Your task to perform on an android device: turn notification dots off Image 0: 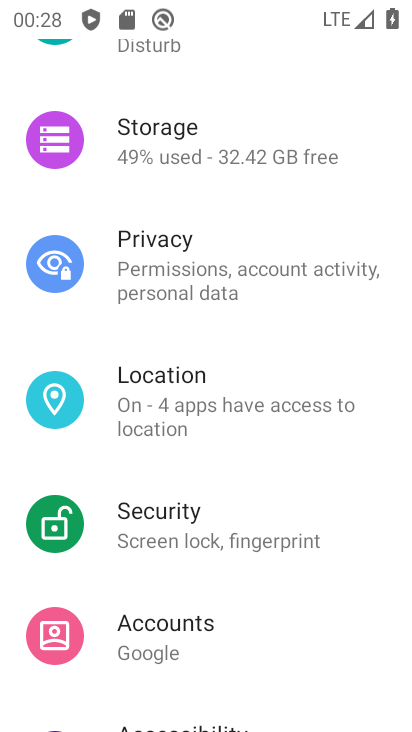
Step 0: drag from (368, 638) to (353, 453)
Your task to perform on an android device: turn notification dots off Image 1: 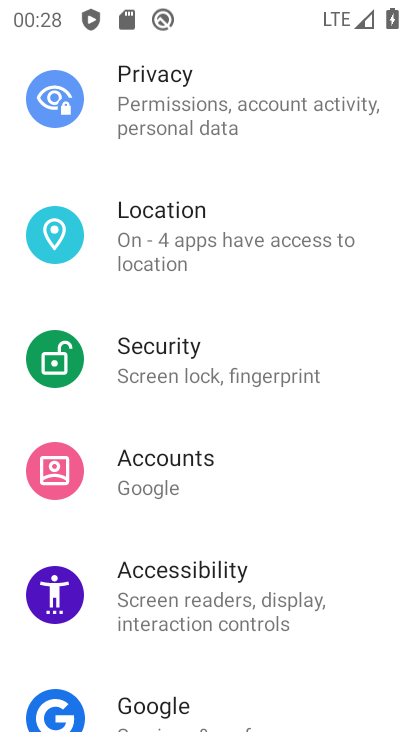
Step 1: drag from (358, 670) to (359, 428)
Your task to perform on an android device: turn notification dots off Image 2: 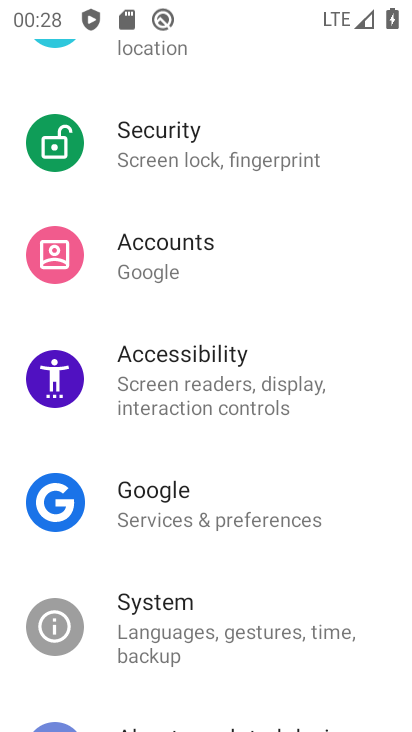
Step 2: drag from (359, 658) to (367, 413)
Your task to perform on an android device: turn notification dots off Image 3: 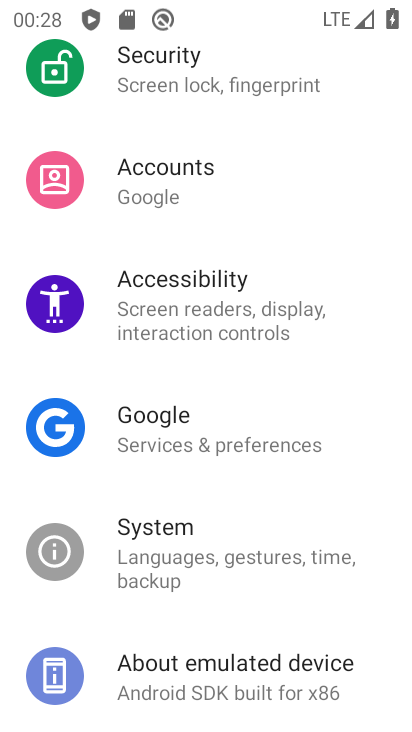
Step 3: drag from (355, 391) to (352, 526)
Your task to perform on an android device: turn notification dots off Image 4: 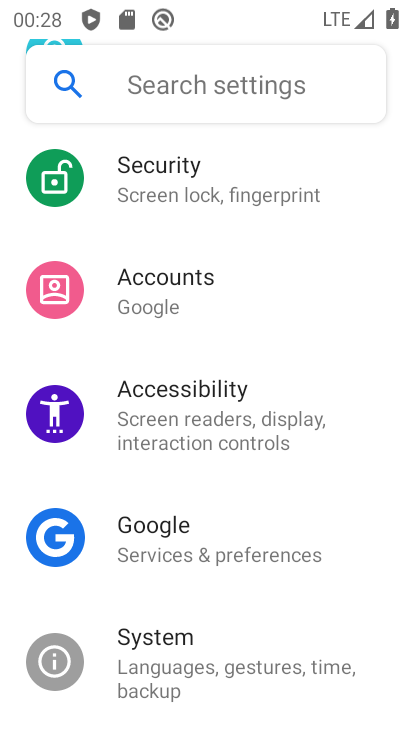
Step 4: drag from (361, 329) to (361, 481)
Your task to perform on an android device: turn notification dots off Image 5: 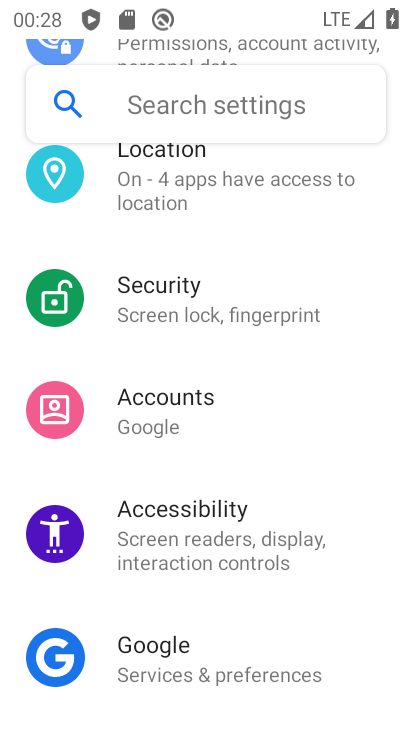
Step 5: drag from (365, 292) to (351, 423)
Your task to perform on an android device: turn notification dots off Image 6: 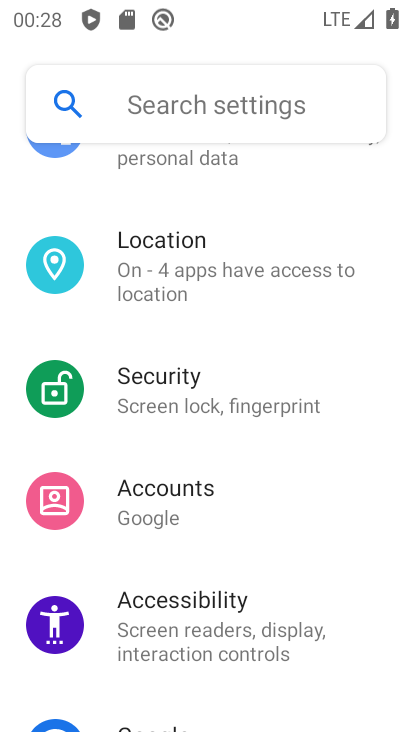
Step 6: drag from (361, 233) to (340, 419)
Your task to perform on an android device: turn notification dots off Image 7: 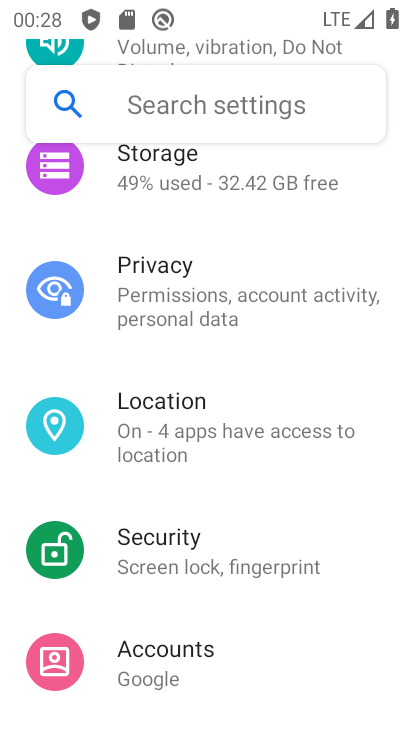
Step 7: drag from (362, 255) to (363, 410)
Your task to perform on an android device: turn notification dots off Image 8: 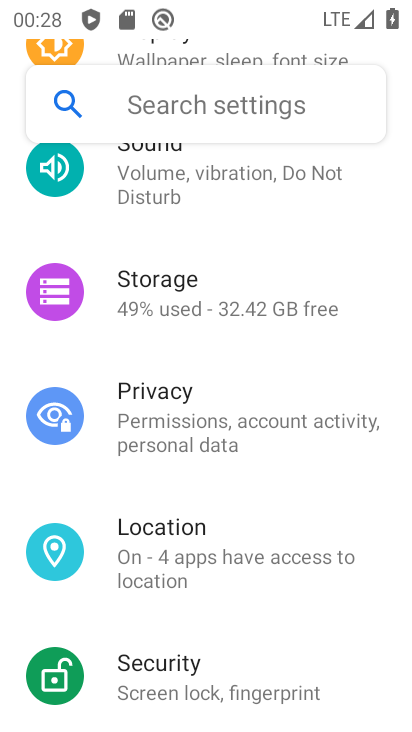
Step 8: drag from (367, 240) to (367, 361)
Your task to perform on an android device: turn notification dots off Image 9: 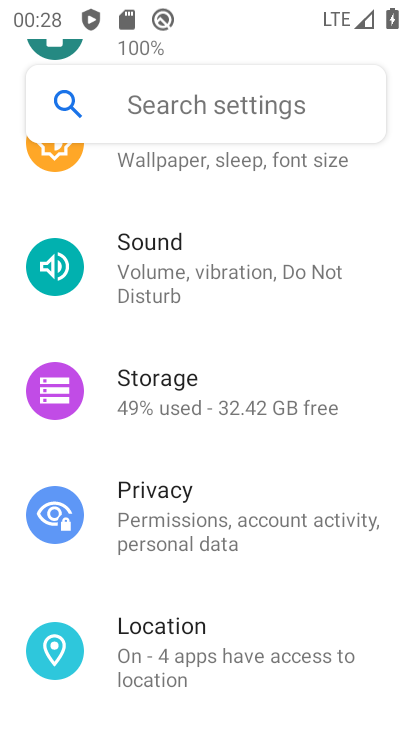
Step 9: drag from (363, 216) to (355, 337)
Your task to perform on an android device: turn notification dots off Image 10: 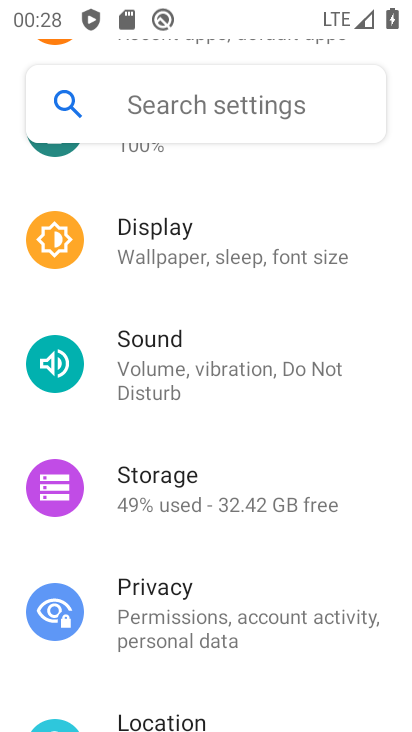
Step 10: drag from (360, 203) to (360, 319)
Your task to perform on an android device: turn notification dots off Image 11: 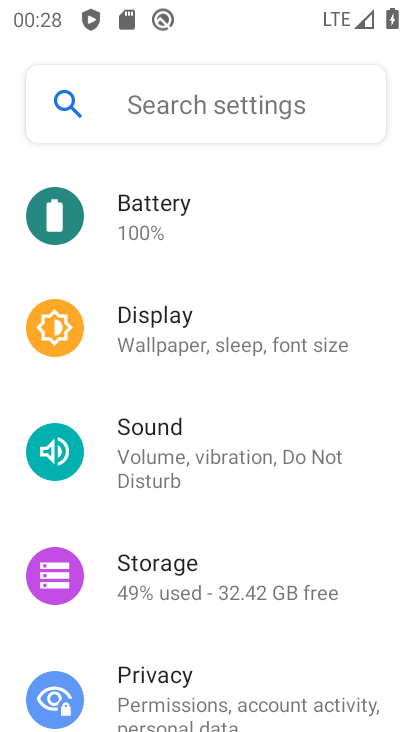
Step 11: drag from (366, 194) to (352, 307)
Your task to perform on an android device: turn notification dots off Image 12: 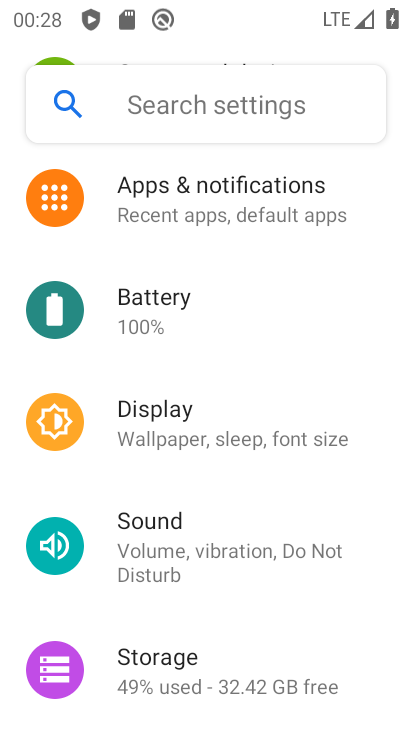
Step 12: drag from (378, 201) to (359, 316)
Your task to perform on an android device: turn notification dots off Image 13: 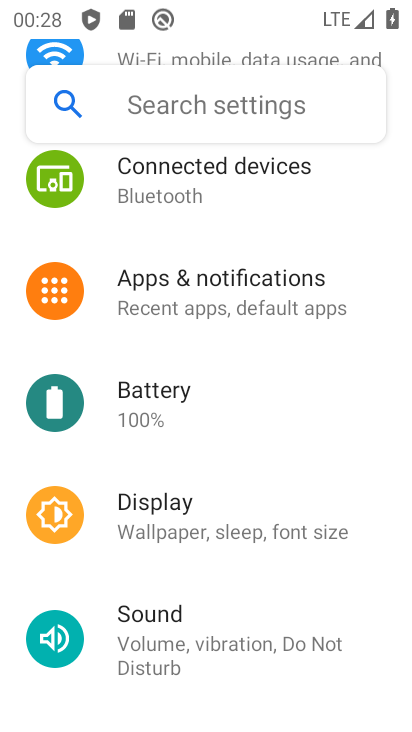
Step 13: drag from (368, 237) to (371, 359)
Your task to perform on an android device: turn notification dots off Image 14: 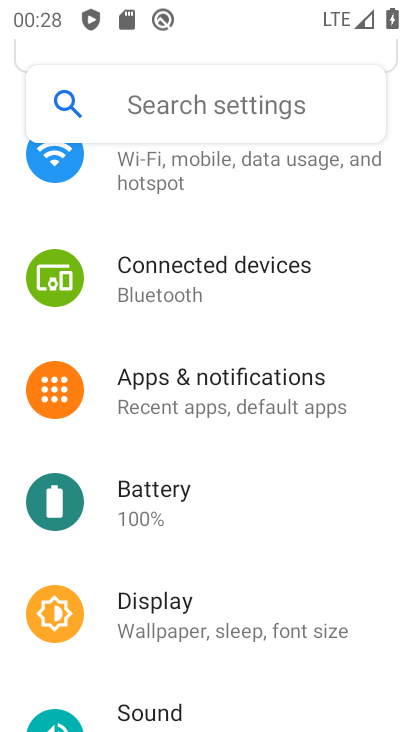
Step 14: drag from (368, 295) to (364, 441)
Your task to perform on an android device: turn notification dots off Image 15: 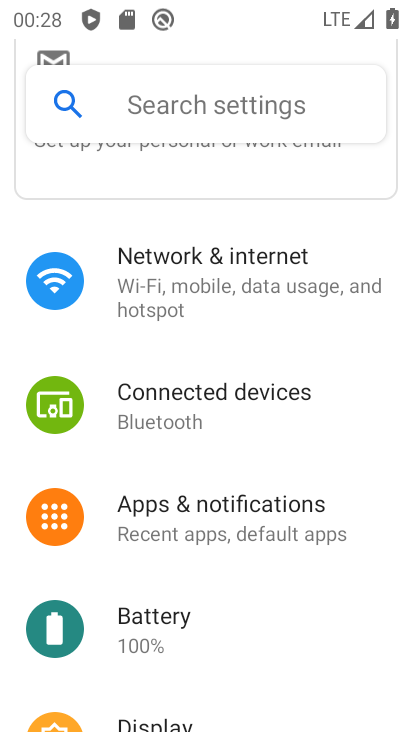
Step 15: drag from (355, 315) to (351, 455)
Your task to perform on an android device: turn notification dots off Image 16: 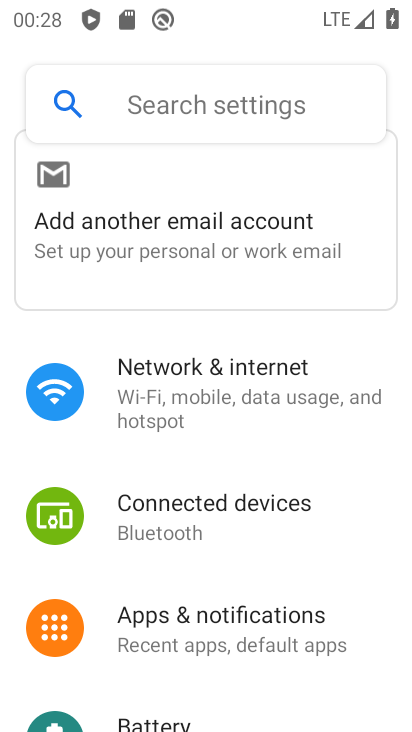
Step 16: drag from (343, 507) to (349, 297)
Your task to perform on an android device: turn notification dots off Image 17: 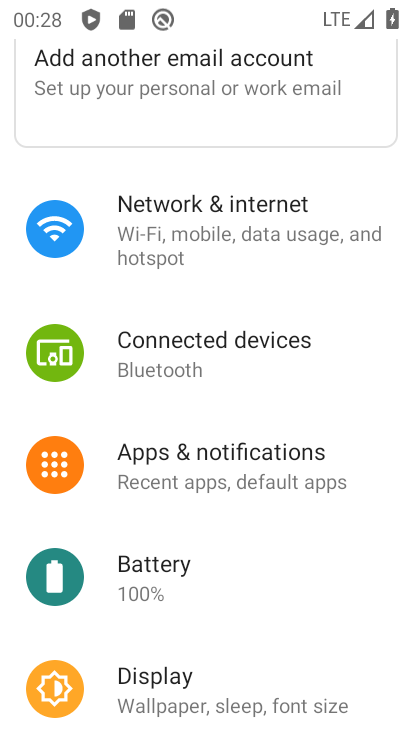
Step 17: click (296, 481)
Your task to perform on an android device: turn notification dots off Image 18: 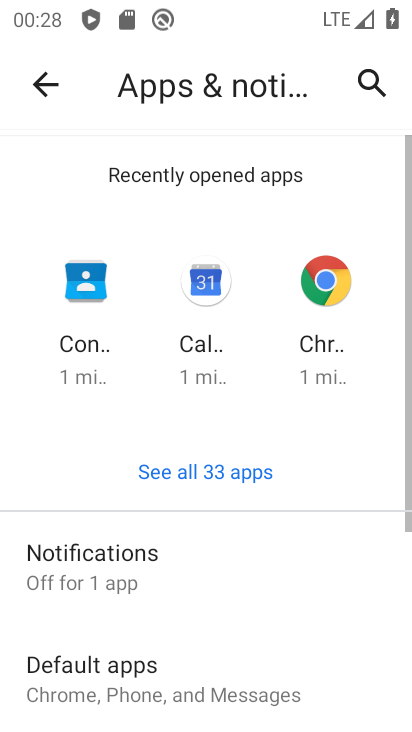
Step 18: drag from (295, 562) to (304, 409)
Your task to perform on an android device: turn notification dots off Image 19: 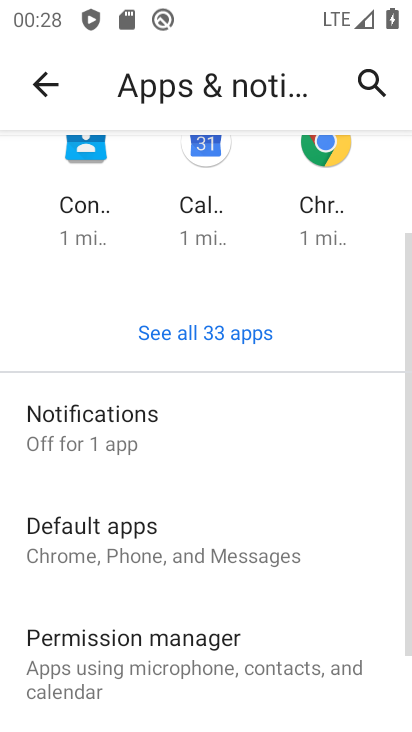
Step 19: click (301, 421)
Your task to perform on an android device: turn notification dots off Image 20: 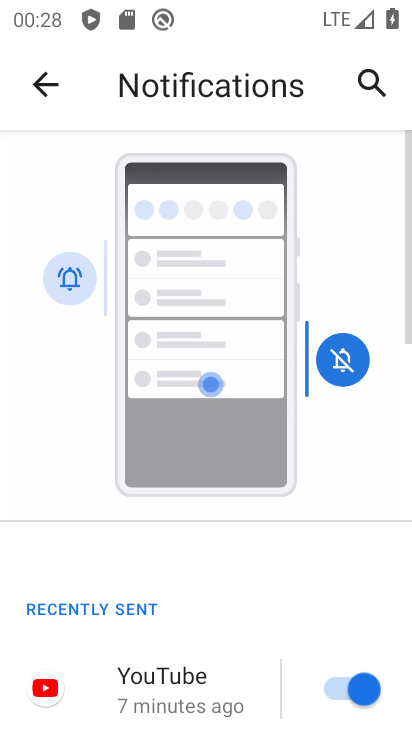
Step 20: drag from (285, 577) to (287, 389)
Your task to perform on an android device: turn notification dots off Image 21: 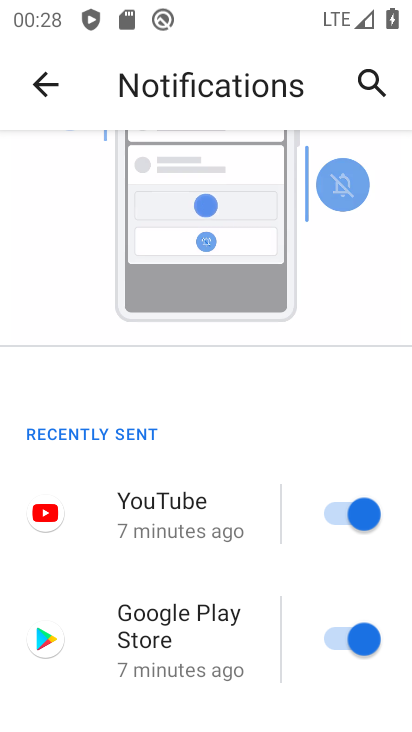
Step 21: drag from (248, 596) to (255, 418)
Your task to perform on an android device: turn notification dots off Image 22: 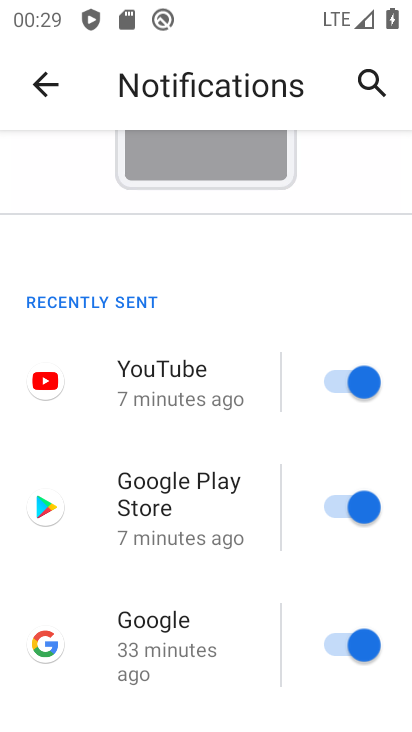
Step 22: drag from (255, 616) to (266, 445)
Your task to perform on an android device: turn notification dots off Image 23: 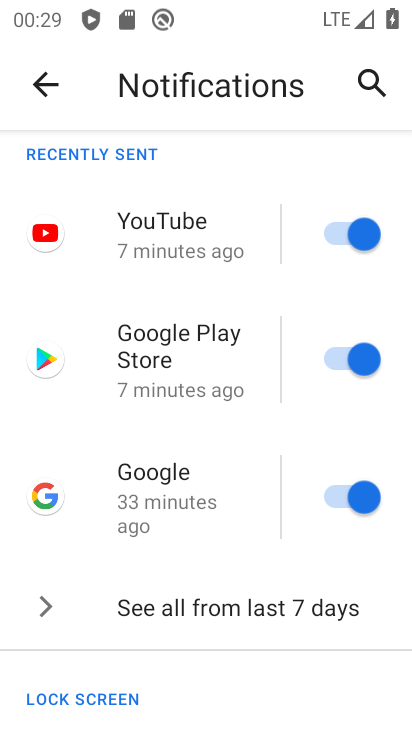
Step 23: drag from (249, 636) to (250, 452)
Your task to perform on an android device: turn notification dots off Image 24: 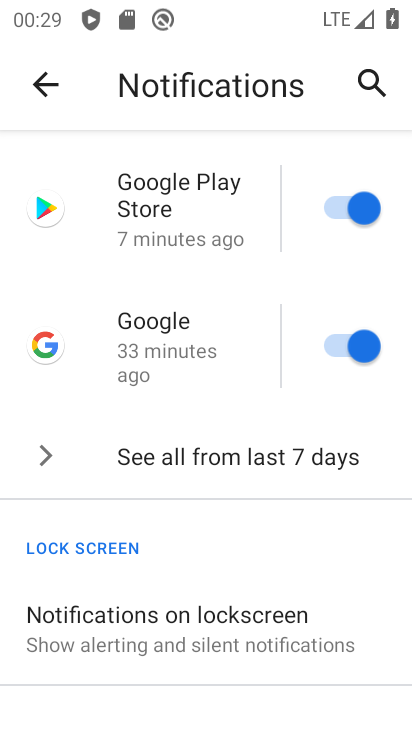
Step 24: drag from (265, 641) to (261, 483)
Your task to perform on an android device: turn notification dots off Image 25: 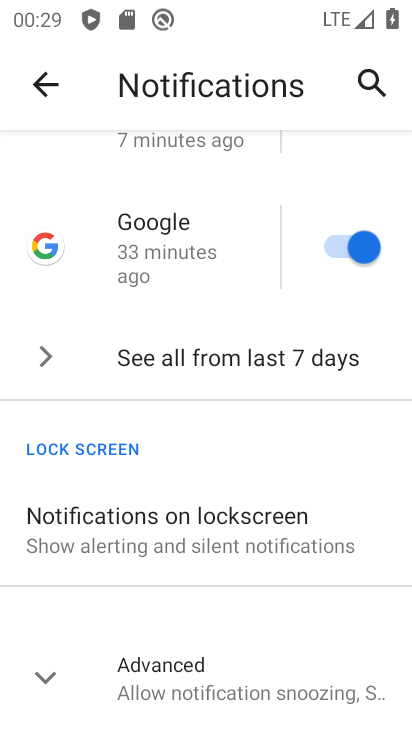
Step 25: drag from (265, 638) to (254, 512)
Your task to perform on an android device: turn notification dots off Image 26: 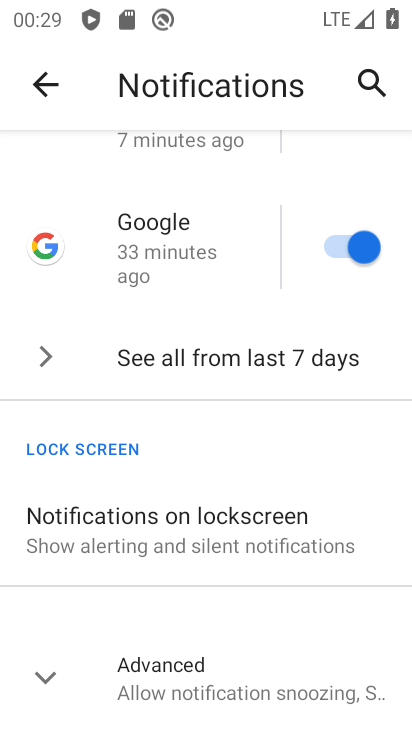
Step 26: click (226, 668)
Your task to perform on an android device: turn notification dots off Image 27: 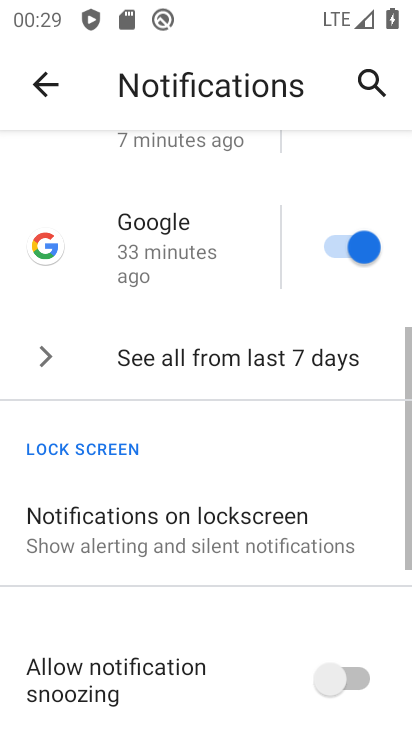
Step 27: drag from (260, 652) to (259, 447)
Your task to perform on an android device: turn notification dots off Image 28: 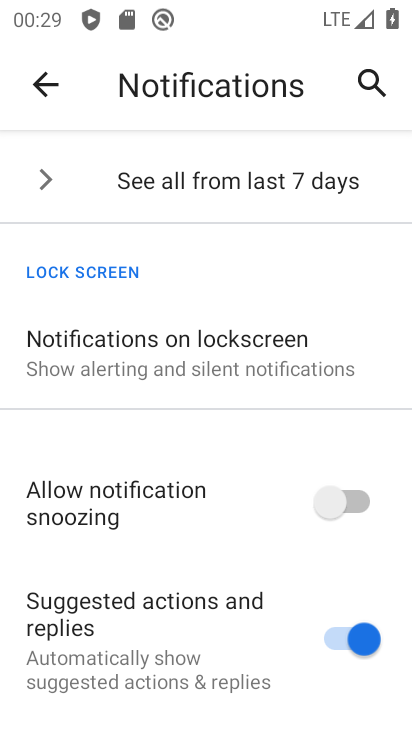
Step 28: drag from (246, 654) to (245, 485)
Your task to perform on an android device: turn notification dots off Image 29: 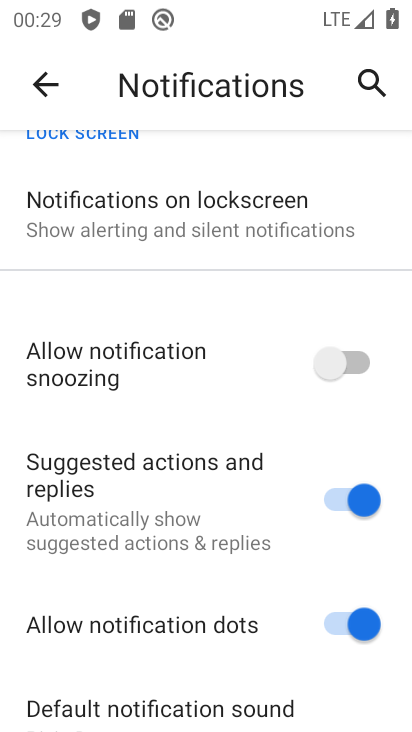
Step 29: click (366, 623)
Your task to perform on an android device: turn notification dots off Image 30: 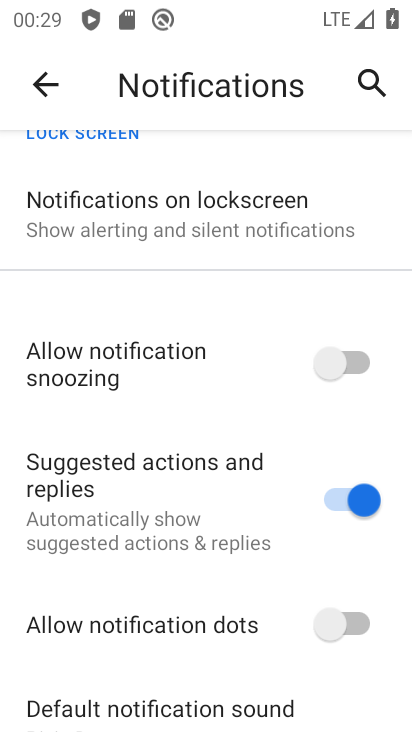
Step 30: task complete